Your task to perform on an android device: set the stopwatch Image 0: 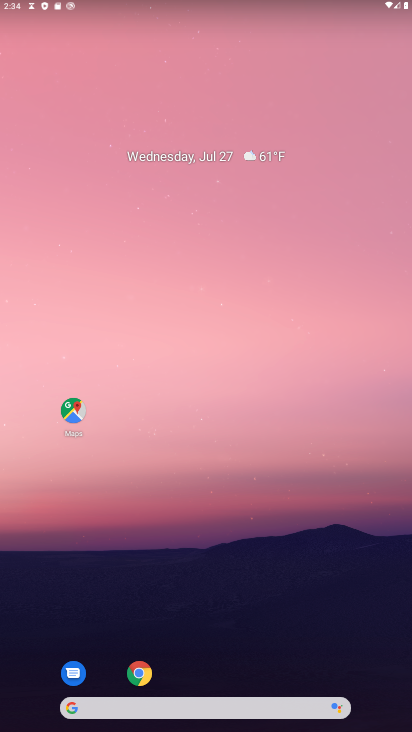
Step 0: drag from (69, 587) to (233, 93)
Your task to perform on an android device: set the stopwatch Image 1: 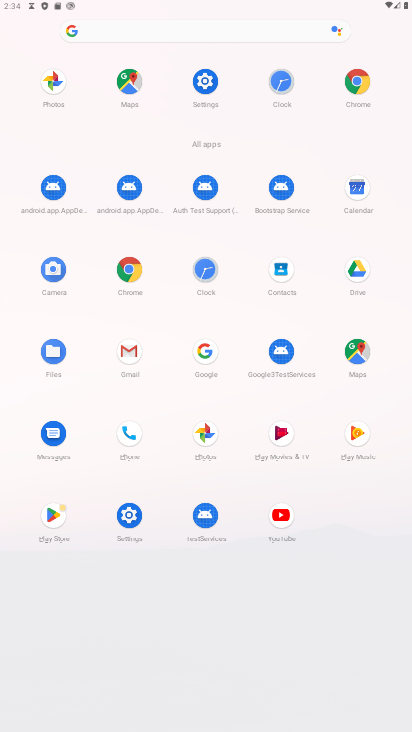
Step 1: click (287, 85)
Your task to perform on an android device: set the stopwatch Image 2: 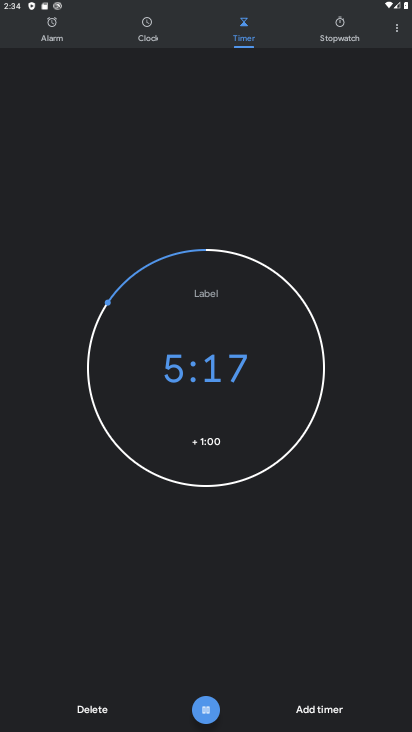
Step 2: click (348, 22)
Your task to perform on an android device: set the stopwatch Image 3: 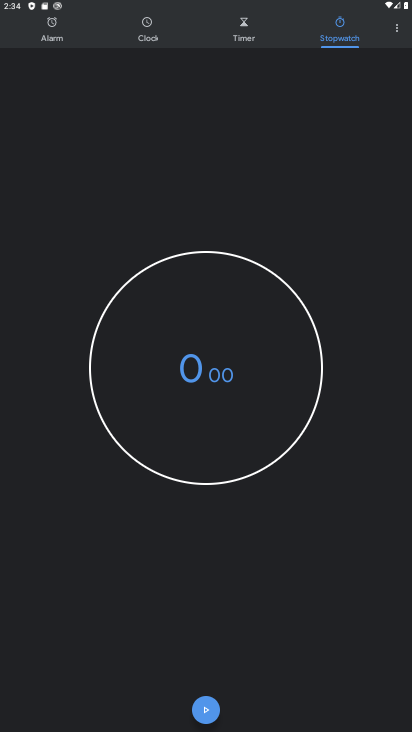
Step 3: click (198, 713)
Your task to perform on an android device: set the stopwatch Image 4: 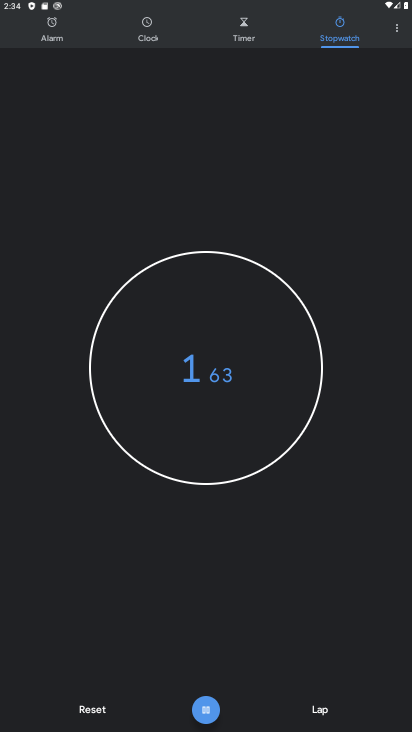
Step 4: click (208, 710)
Your task to perform on an android device: set the stopwatch Image 5: 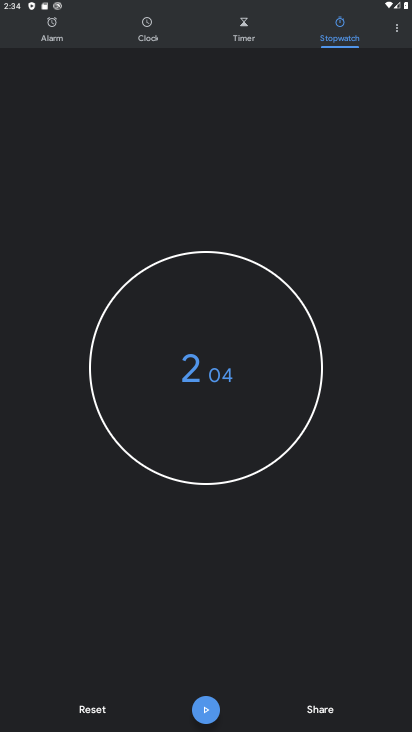
Step 5: task complete